Your task to perform on an android device: delete a single message in the gmail app Image 0: 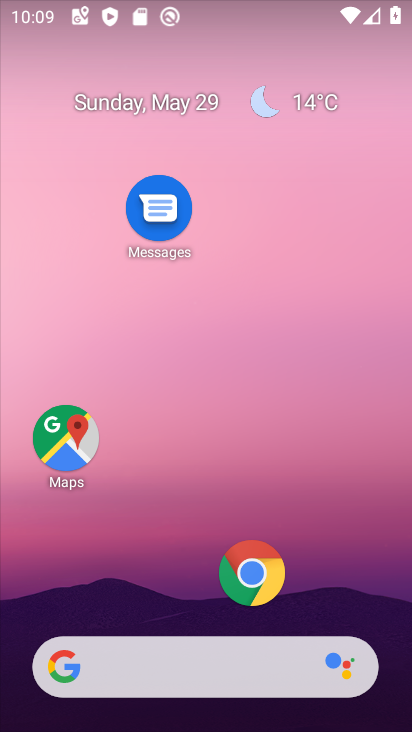
Step 0: drag from (155, 615) to (245, 56)
Your task to perform on an android device: delete a single message in the gmail app Image 1: 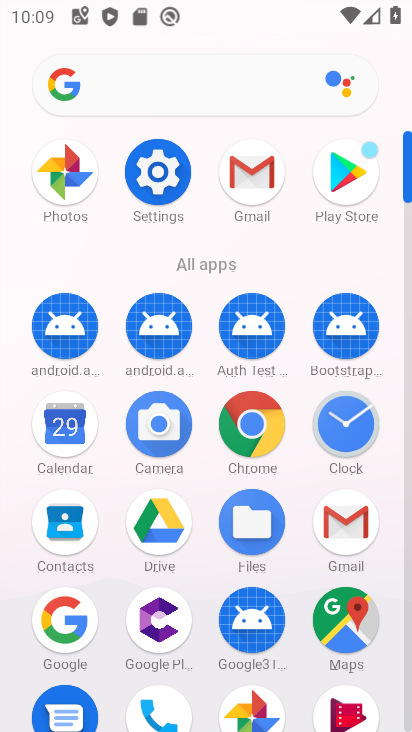
Step 1: click (242, 176)
Your task to perform on an android device: delete a single message in the gmail app Image 2: 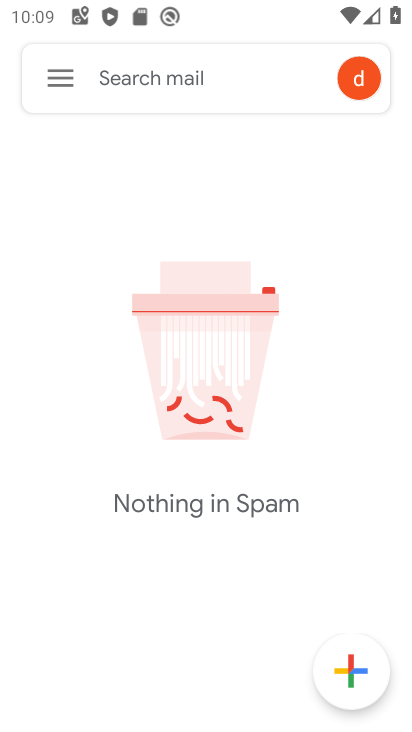
Step 2: click (51, 61)
Your task to perform on an android device: delete a single message in the gmail app Image 3: 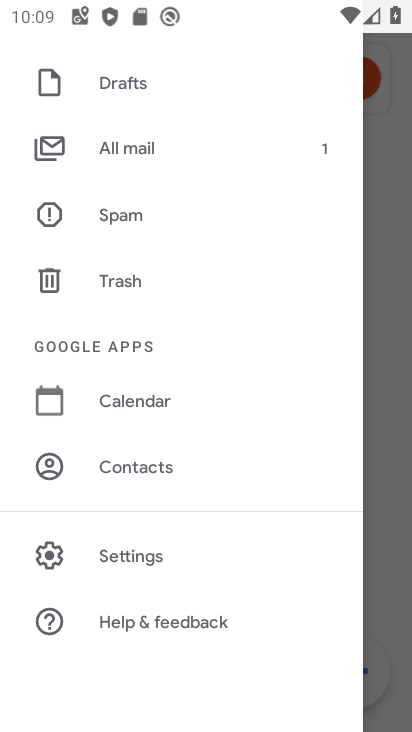
Step 3: click (160, 150)
Your task to perform on an android device: delete a single message in the gmail app Image 4: 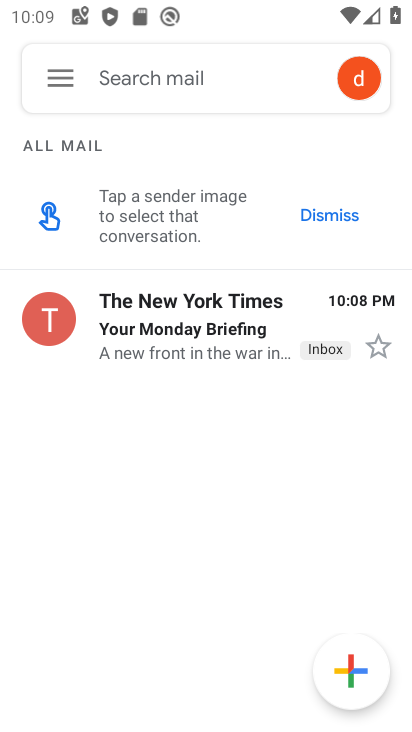
Step 4: click (45, 330)
Your task to perform on an android device: delete a single message in the gmail app Image 5: 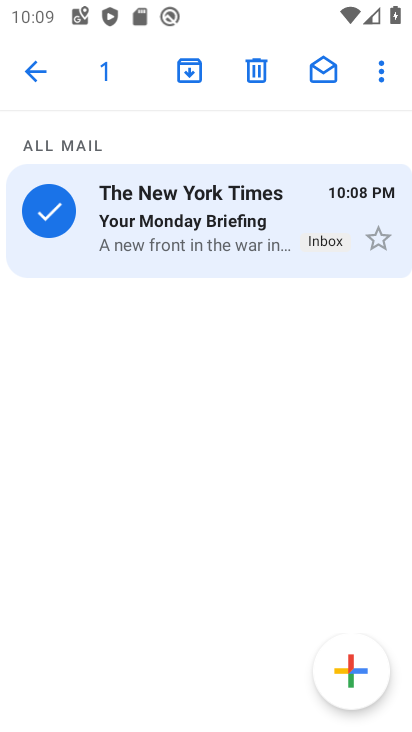
Step 5: click (255, 62)
Your task to perform on an android device: delete a single message in the gmail app Image 6: 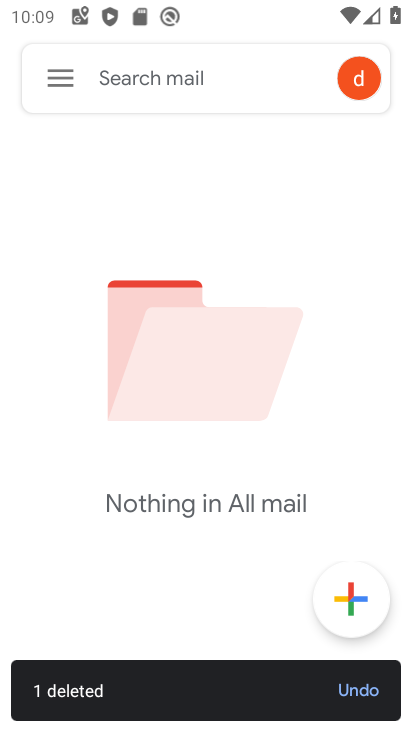
Step 6: task complete